Your task to perform on an android device: Set an alarm for 6pm Image 0: 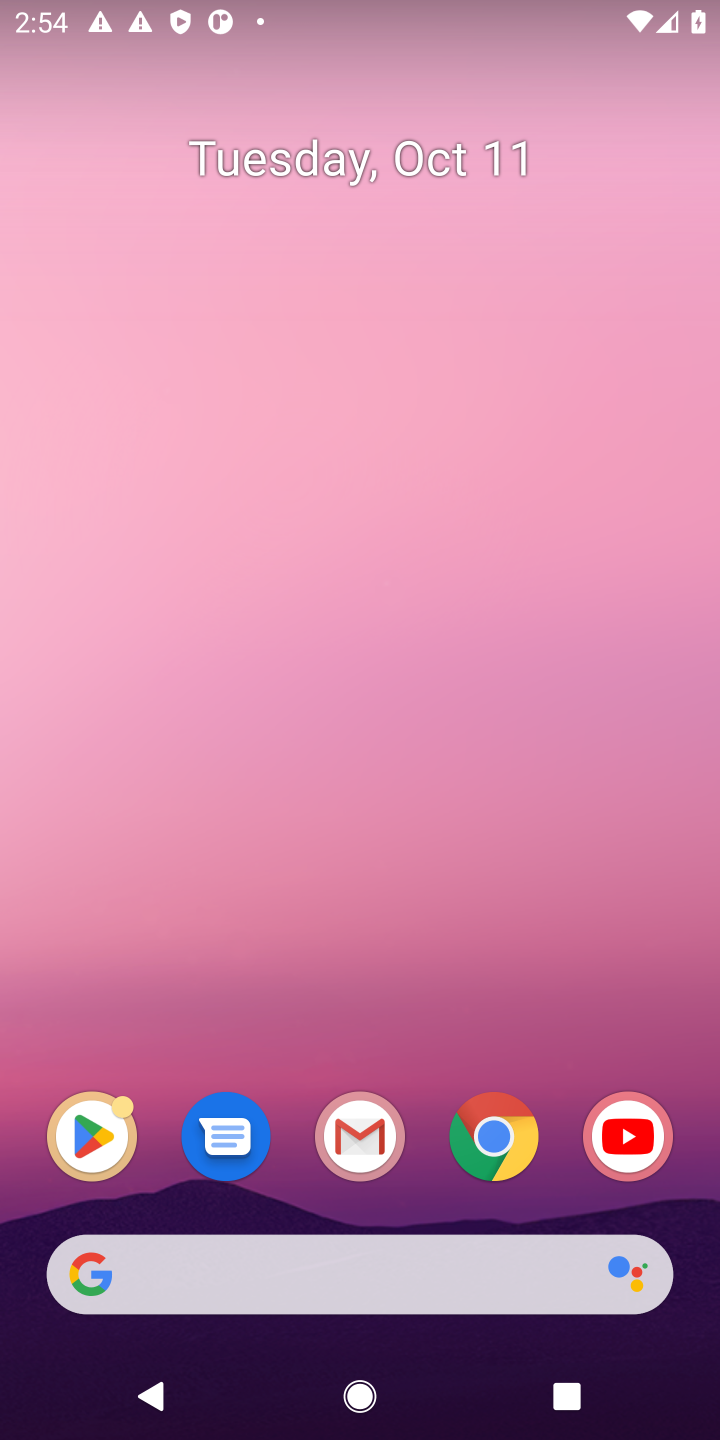
Step 0: drag from (309, 1227) to (559, 161)
Your task to perform on an android device: Set an alarm for 6pm Image 1: 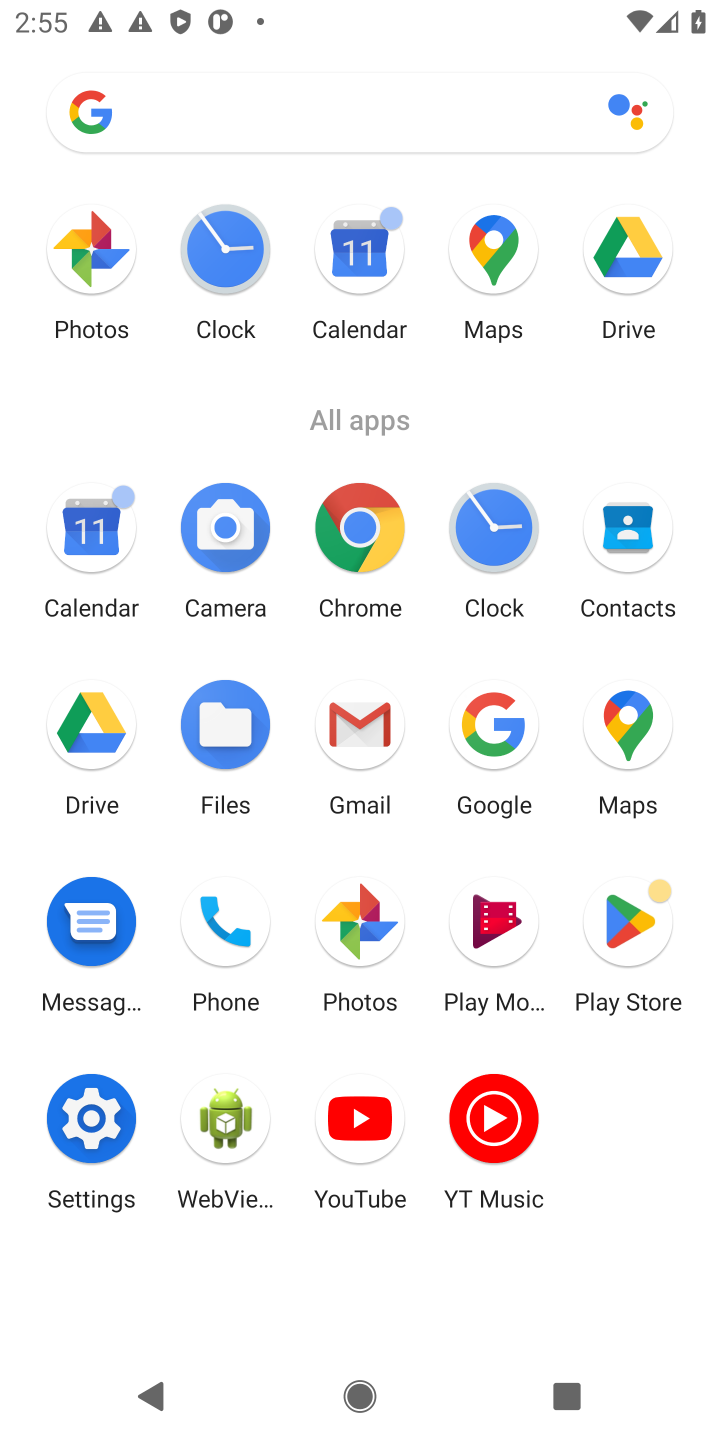
Step 1: click (508, 543)
Your task to perform on an android device: Set an alarm for 6pm Image 2: 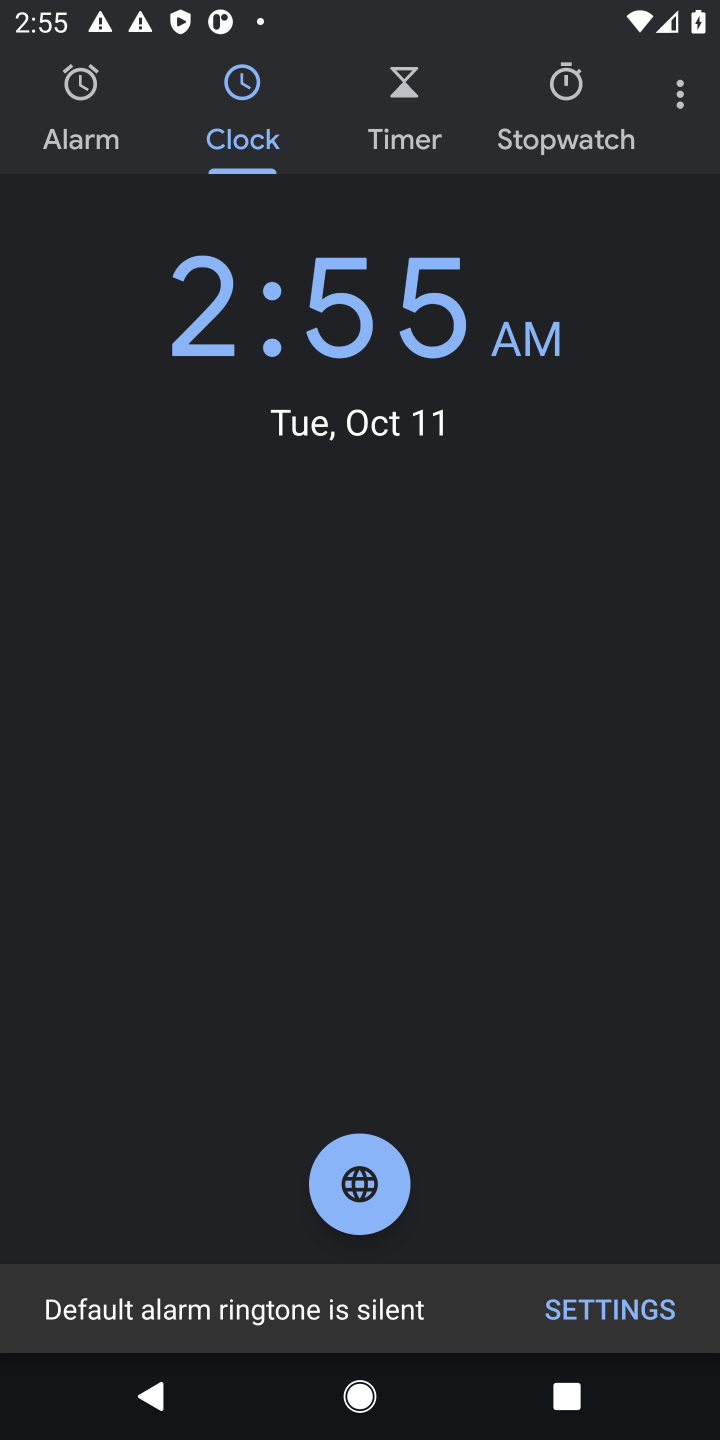
Step 2: click (95, 131)
Your task to perform on an android device: Set an alarm for 6pm Image 3: 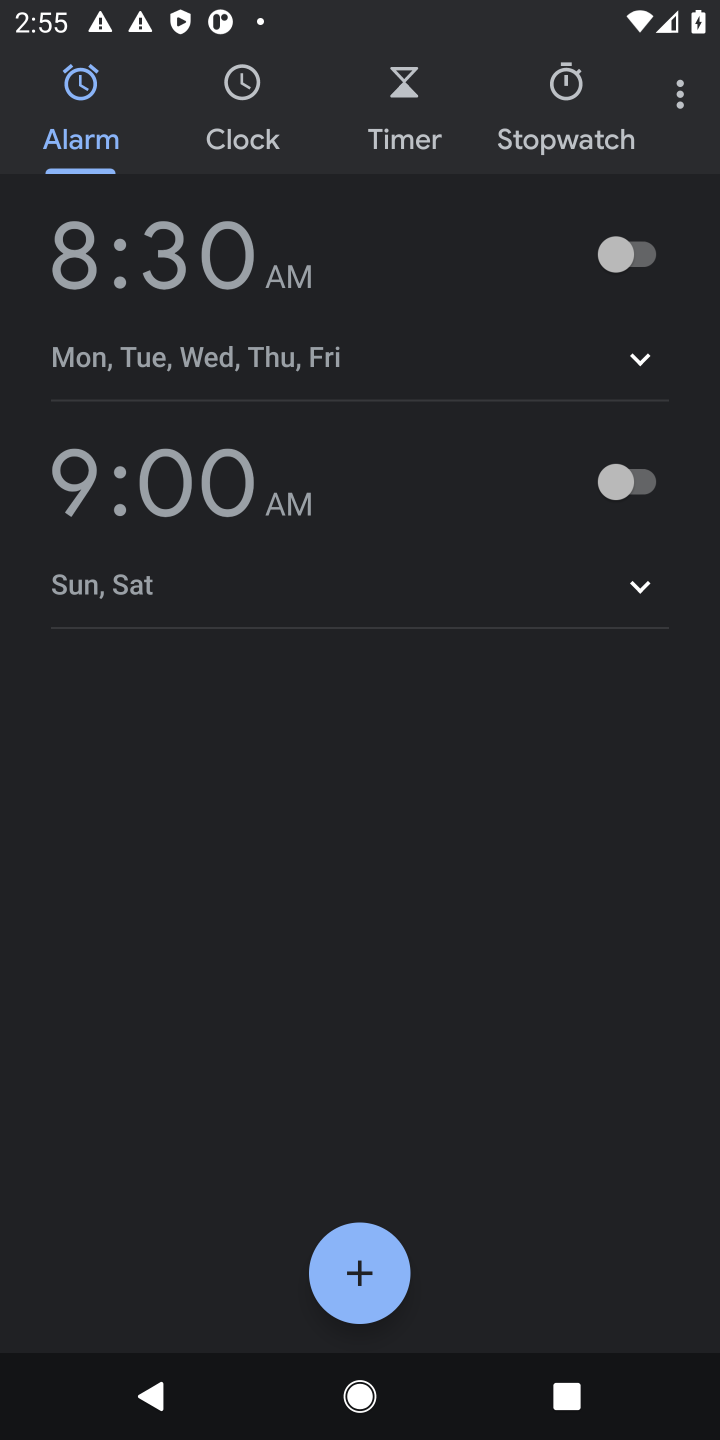
Step 3: click (183, 286)
Your task to perform on an android device: Set an alarm for 6pm Image 4: 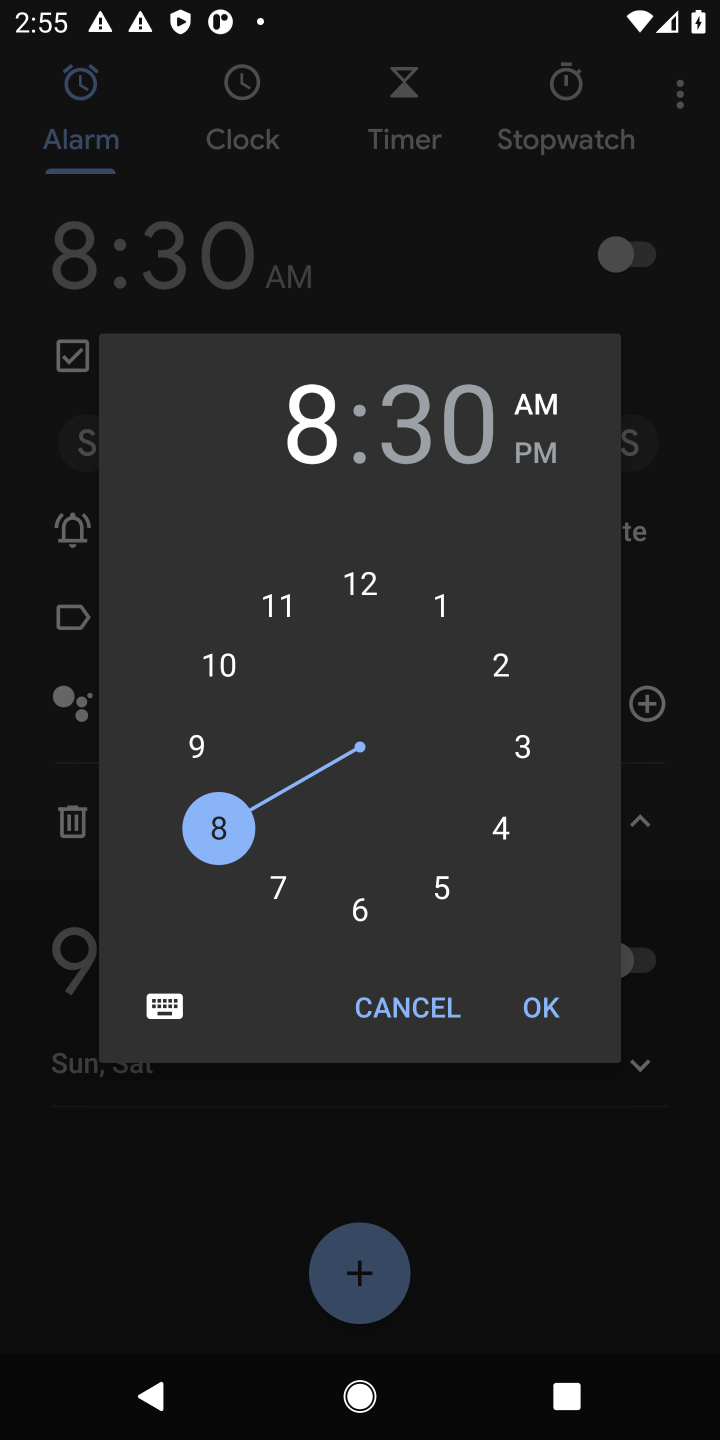
Step 4: click (358, 902)
Your task to perform on an android device: Set an alarm for 6pm Image 5: 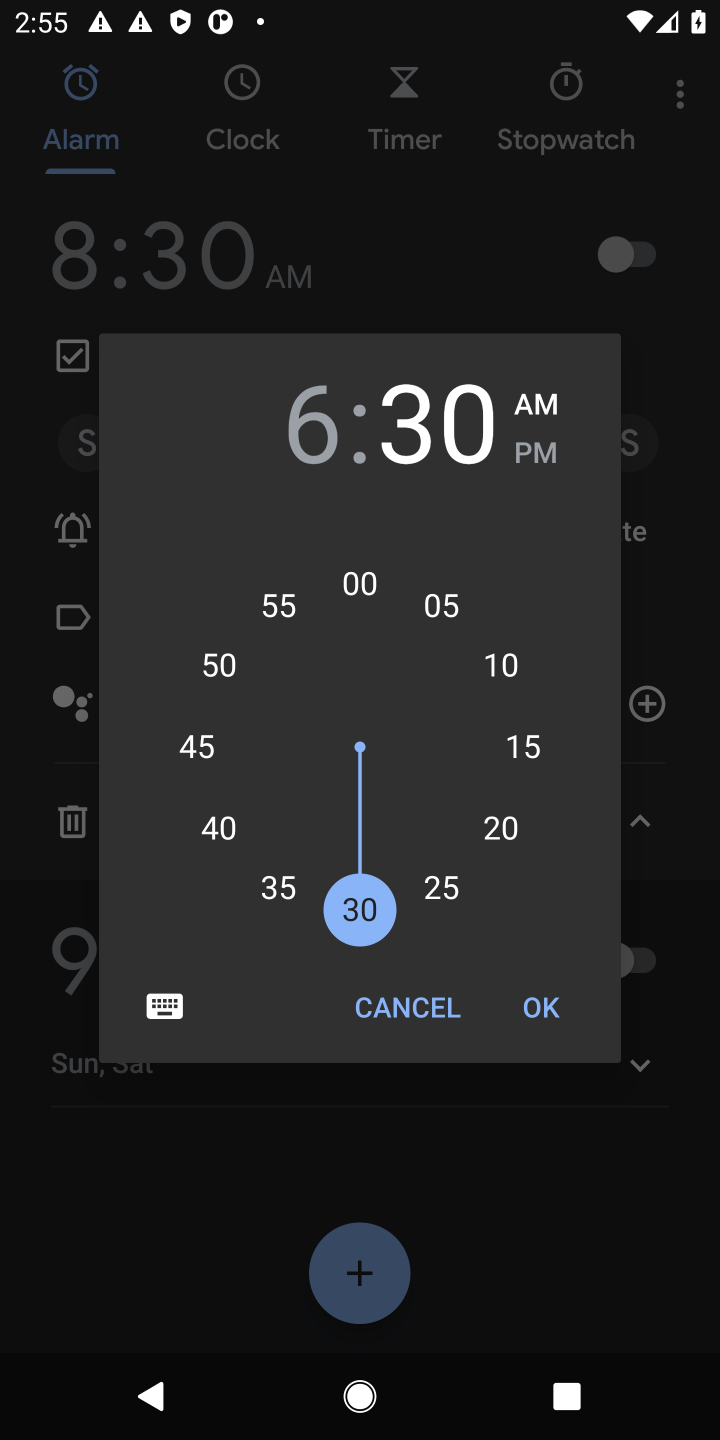
Step 5: click (366, 573)
Your task to perform on an android device: Set an alarm for 6pm Image 6: 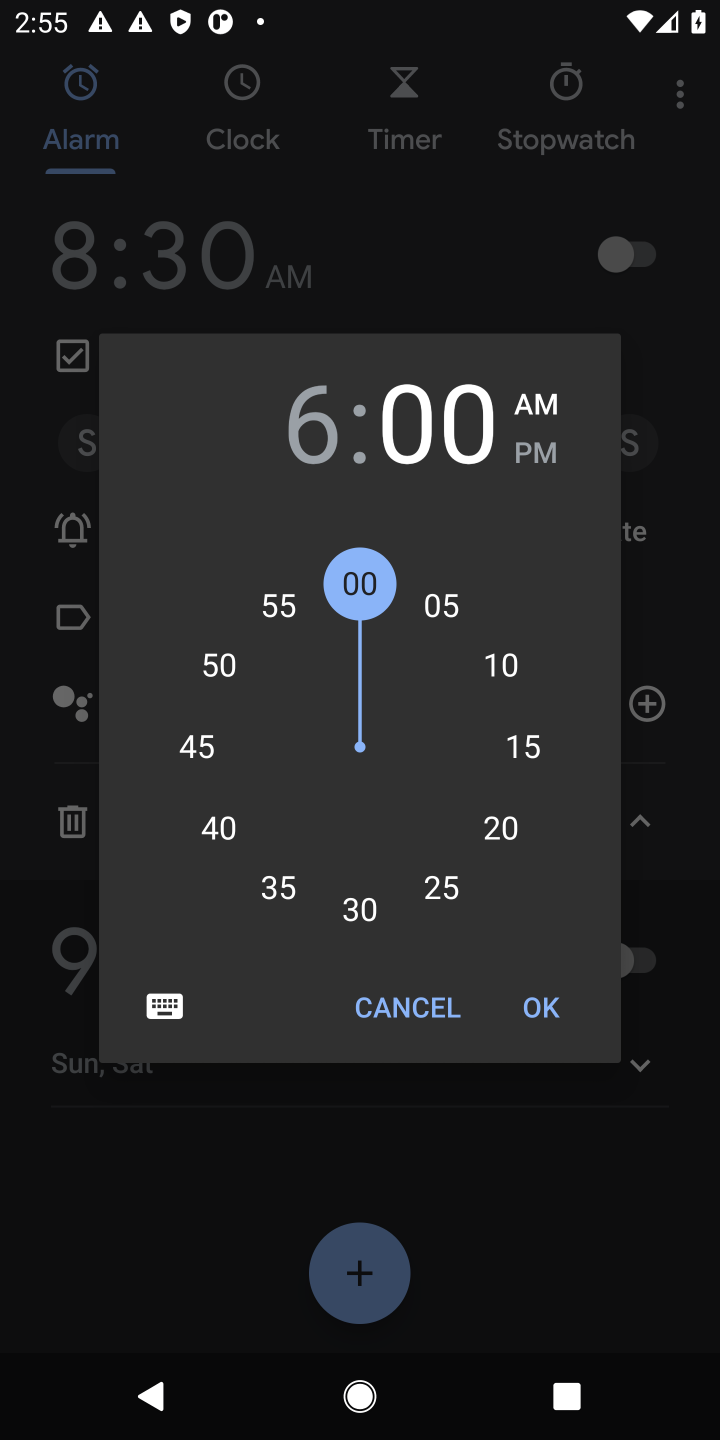
Step 6: click (554, 459)
Your task to perform on an android device: Set an alarm for 6pm Image 7: 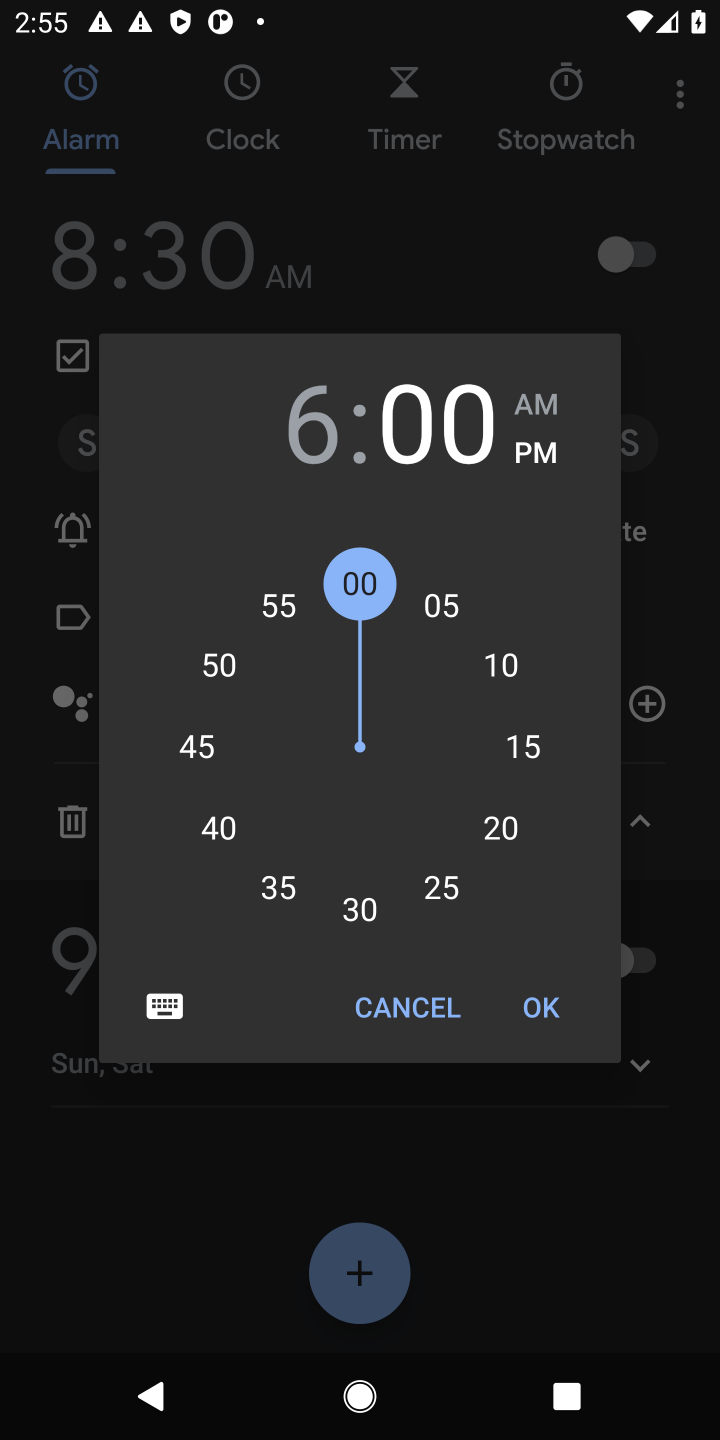
Step 7: task complete